Your task to perform on an android device: delete browsing data in the chrome app Image 0: 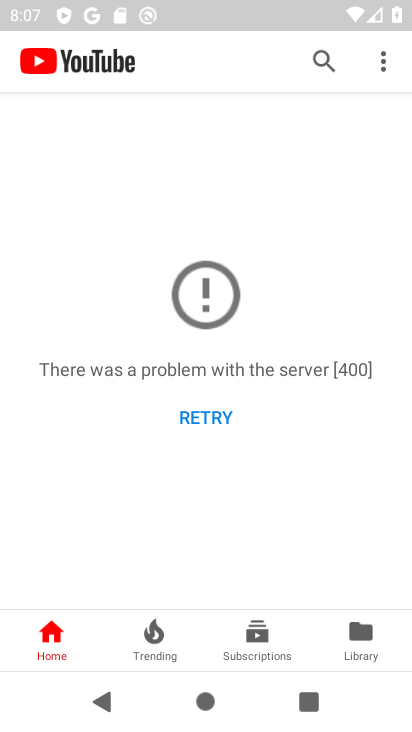
Step 0: press home button
Your task to perform on an android device: delete browsing data in the chrome app Image 1: 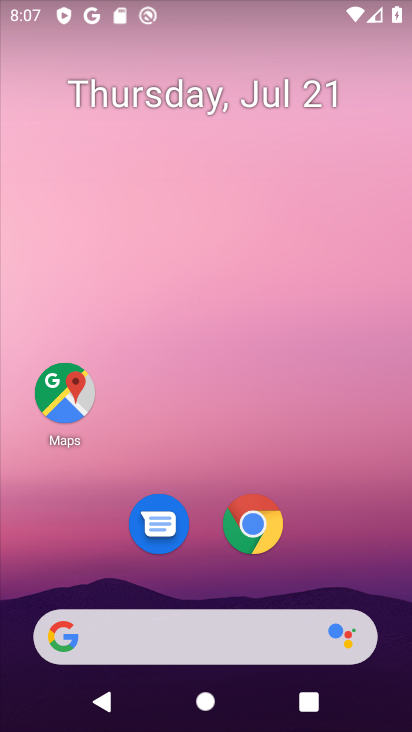
Step 1: click (248, 521)
Your task to perform on an android device: delete browsing data in the chrome app Image 2: 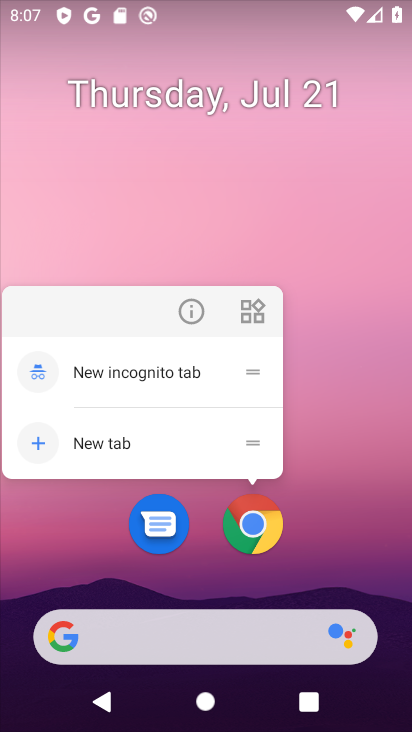
Step 2: click (247, 529)
Your task to perform on an android device: delete browsing data in the chrome app Image 3: 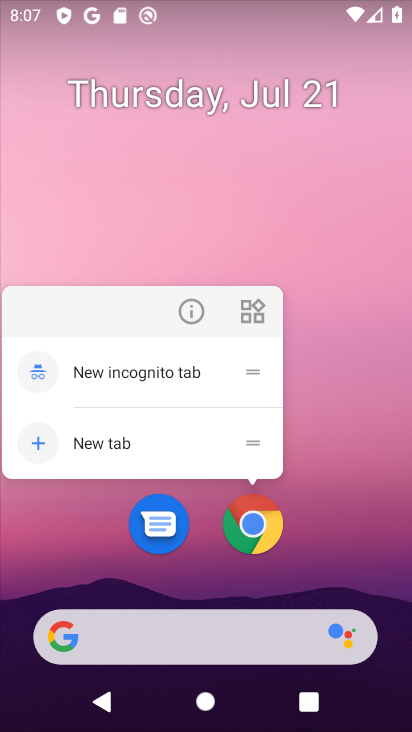
Step 3: click (256, 528)
Your task to perform on an android device: delete browsing data in the chrome app Image 4: 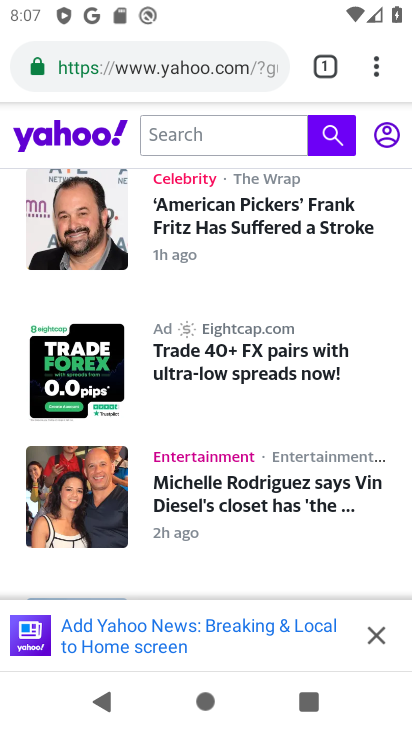
Step 4: drag from (376, 63) to (265, 535)
Your task to perform on an android device: delete browsing data in the chrome app Image 5: 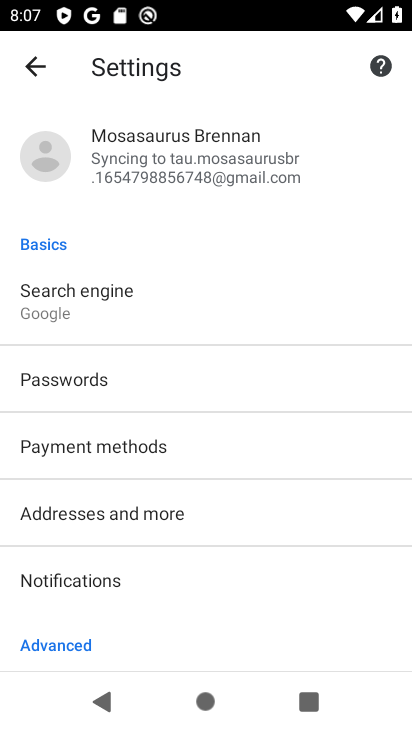
Step 5: drag from (190, 519) to (338, 159)
Your task to perform on an android device: delete browsing data in the chrome app Image 6: 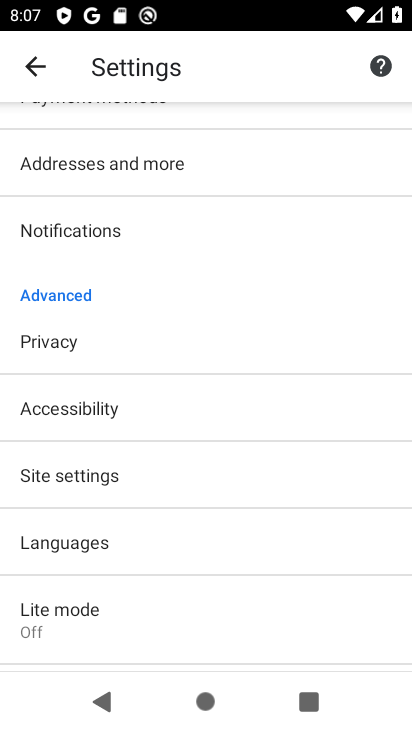
Step 6: click (66, 346)
Your task to perform on an android device: delete browsing data in the chrome app Image 7: 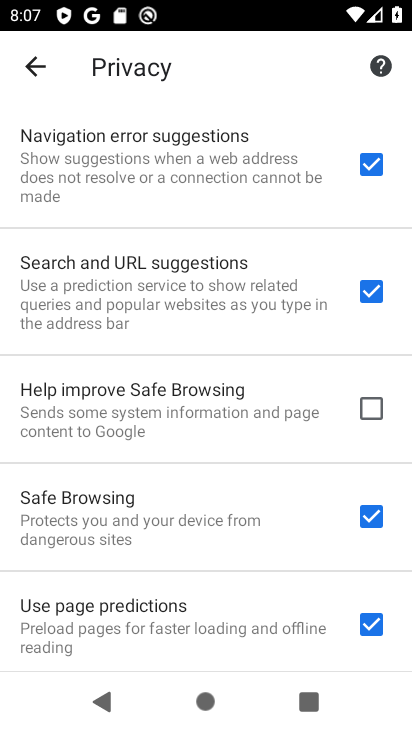
Step 7: drag from (198, 592) to (344, 160)
Your task to perform on an android device: delete browsing data in the chrome app Image 8: 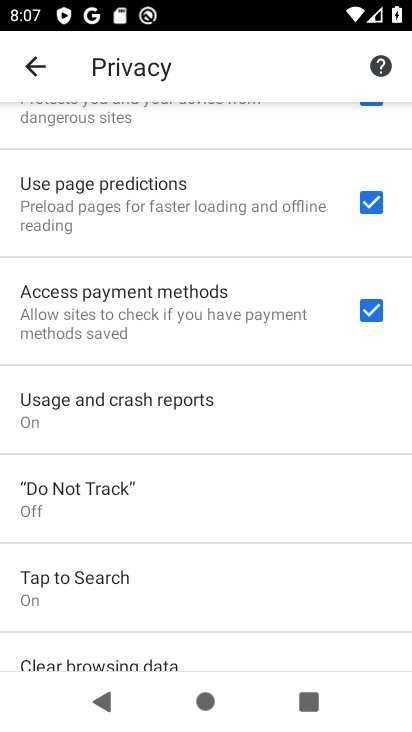
Step 8: drag from (190, 595) to (382, 104)
Your task to perform on an android device: delete browsing data in the chrome app Image 9: 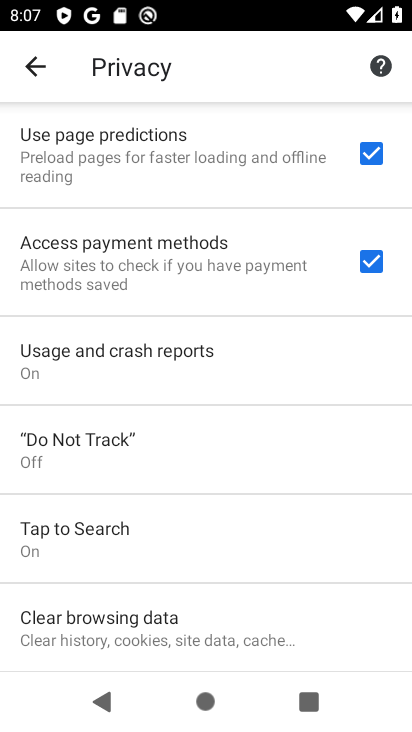
Step 9: click (206, 634)
Your task to perform on an android device: delete browsing data in the chrome app Image 10: 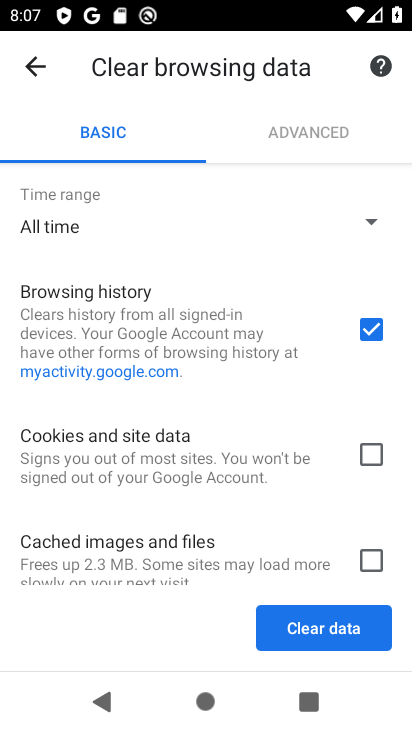
Step 10: click (372, 448)
Your task to perform on an android device: delete browsing data in the chrome app Image 11: 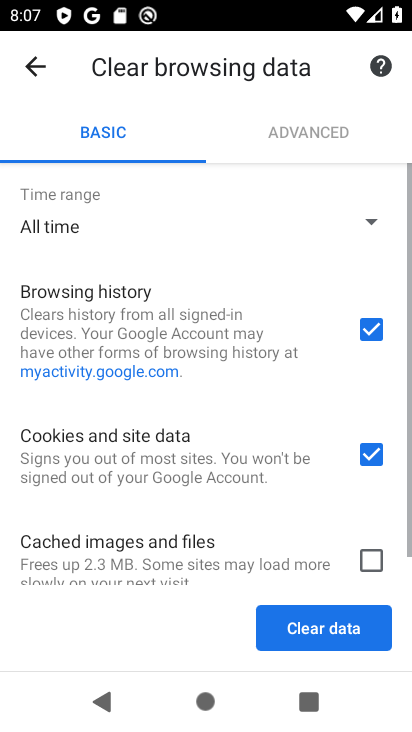
Step 11: click (374, 553)
Your task to perform on an android device: delete browsing data in the chrome app Image 12: 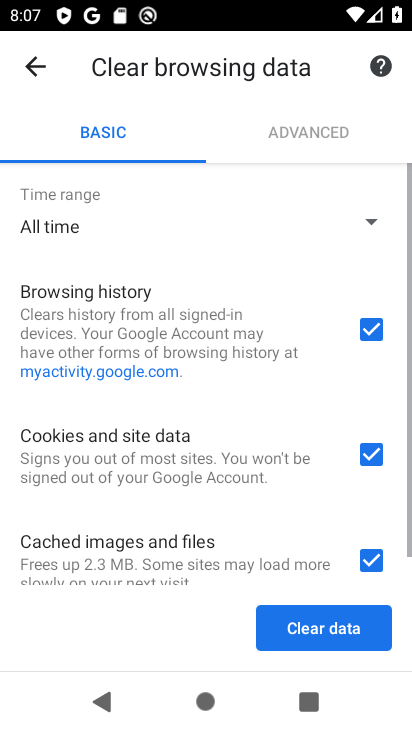
Step 12: click (340, 627)
Your task to perform on an android device: delete browsing data in the chrome app Image 13: 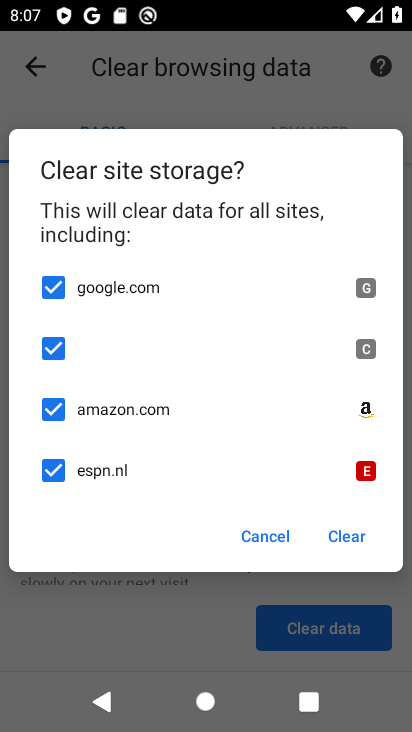
Step 13: click (358, 543)
Your task to perform on an android device: delete browsing data in the chrome app Image 14: 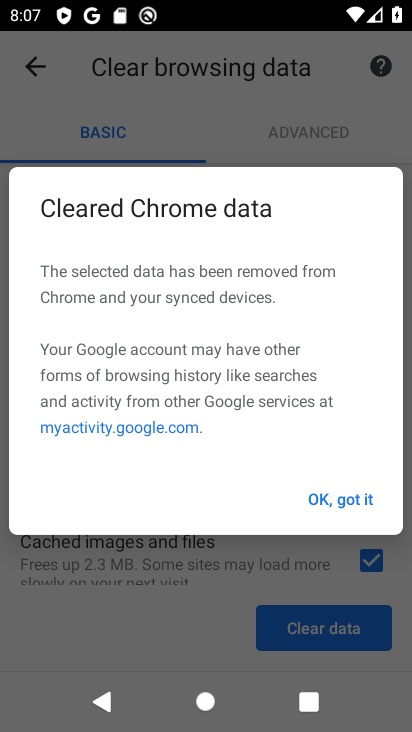
Step 14: click (348, 501)
Your task to perform on an android device: delete browsing data in the chrome app Image 15: 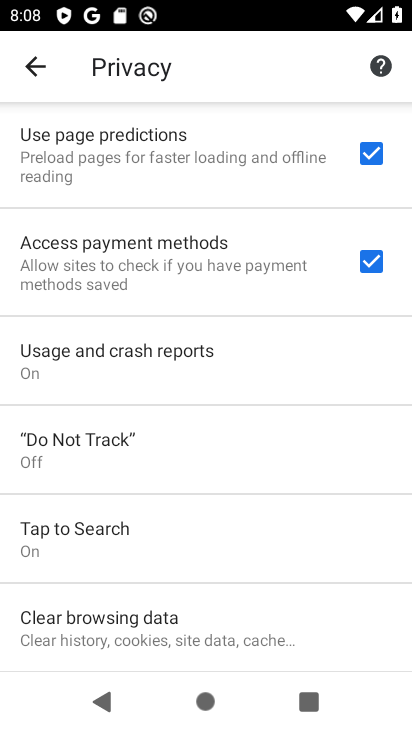
Step 15: task complete